Your task to perform on an android device: open app "ColorNote Notepad Notes" (install if not already installed) Image 0: 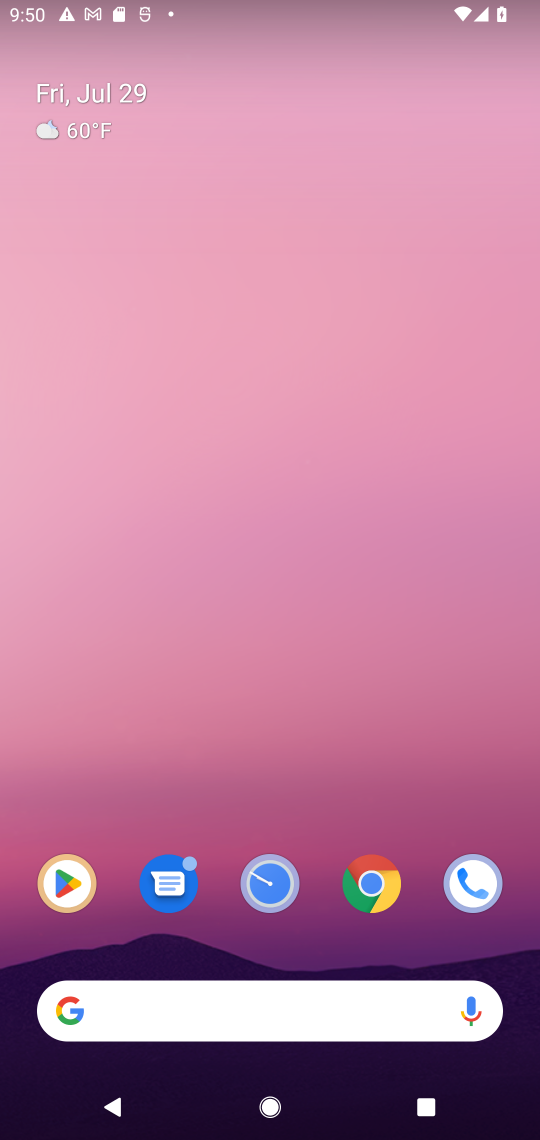
Step 0: click (65, 874)
Your task to perform on an android device: open app "ColorNote Notepad Notes" (install if not already installed) Image 1: 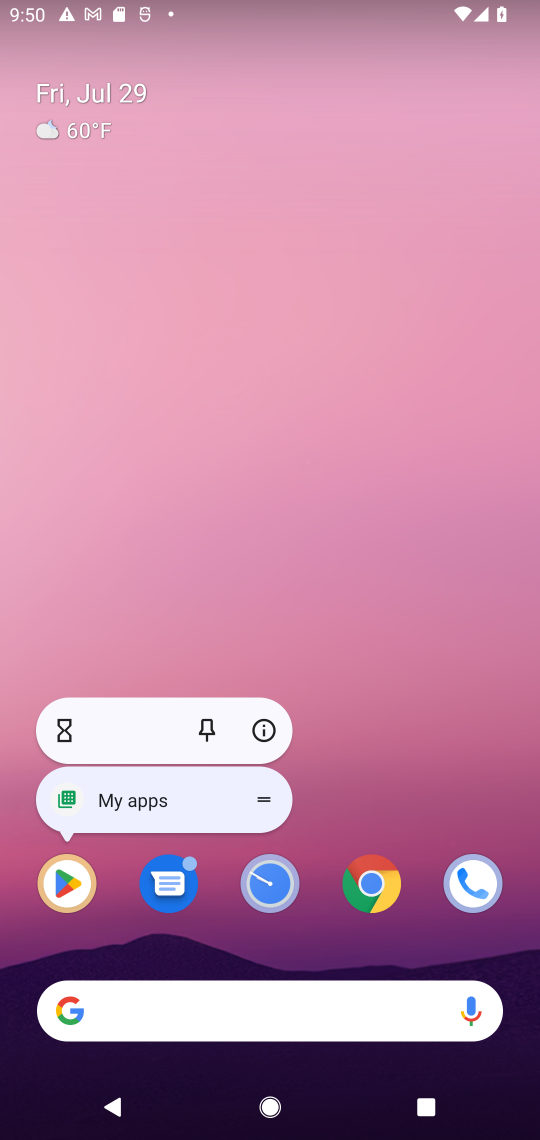
Step 1: click (66, 875)
Your task to perform on an android device: open app "ColorNote Notepad Notes" (install if not already installed) Image 2: 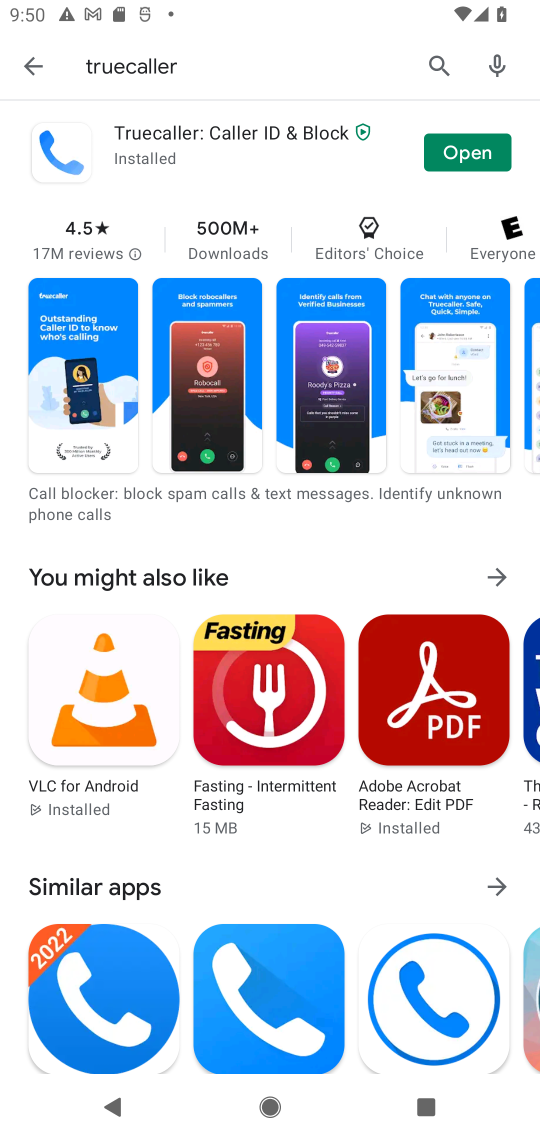
Step 2: click (229, 64)
Your task to perform on an android device: open app "ColorNote Notepad Notes" (install if not already installed) Image 3: 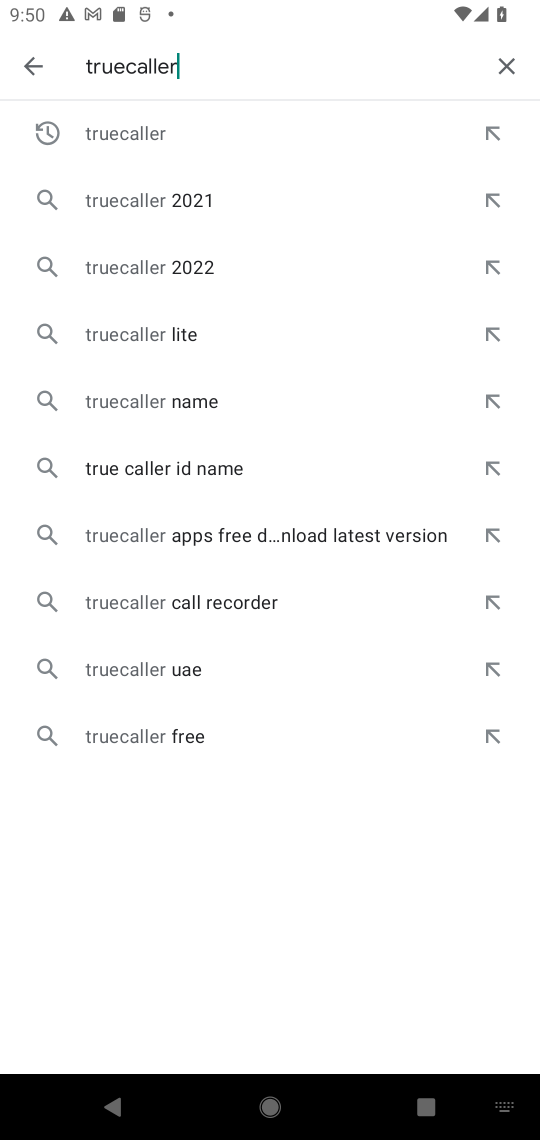
Step 3: click (250, 78)
Your task to perform on an android device: open app "ColorNote Notepad Notes" (install if not already installed) Image 4: 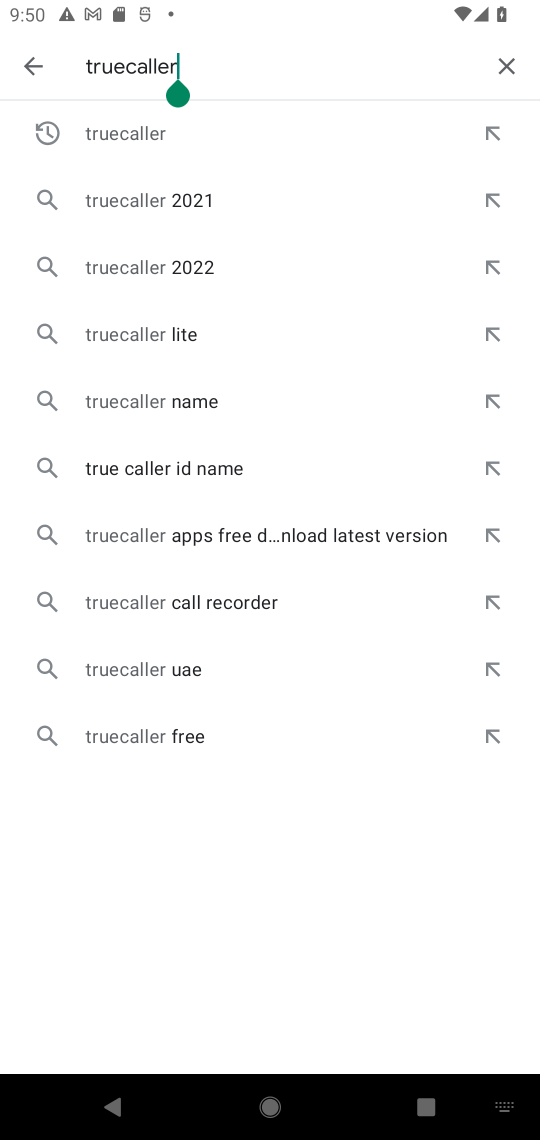
Step 4: click (502, 64)
Your task to perform on an android device: open app "ColorNote Notepad Notes" (install if not already installed) Image 5: 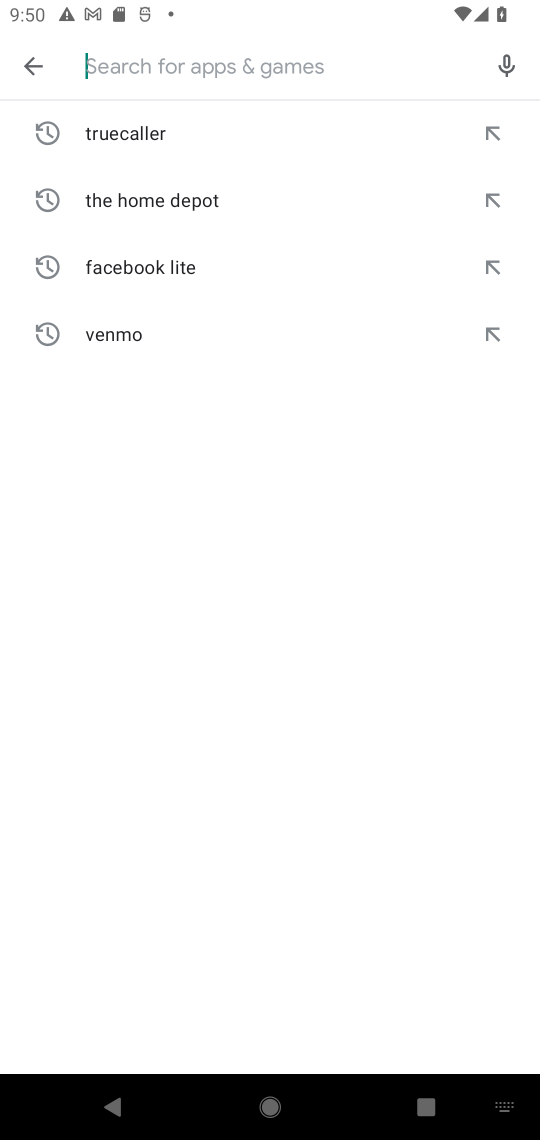
Step 5: type "ColorNote NOtepad Notes"
Your task to perform on an android device: open app "ColorNote Notepad Notes" (install if not already installed) Image 6: 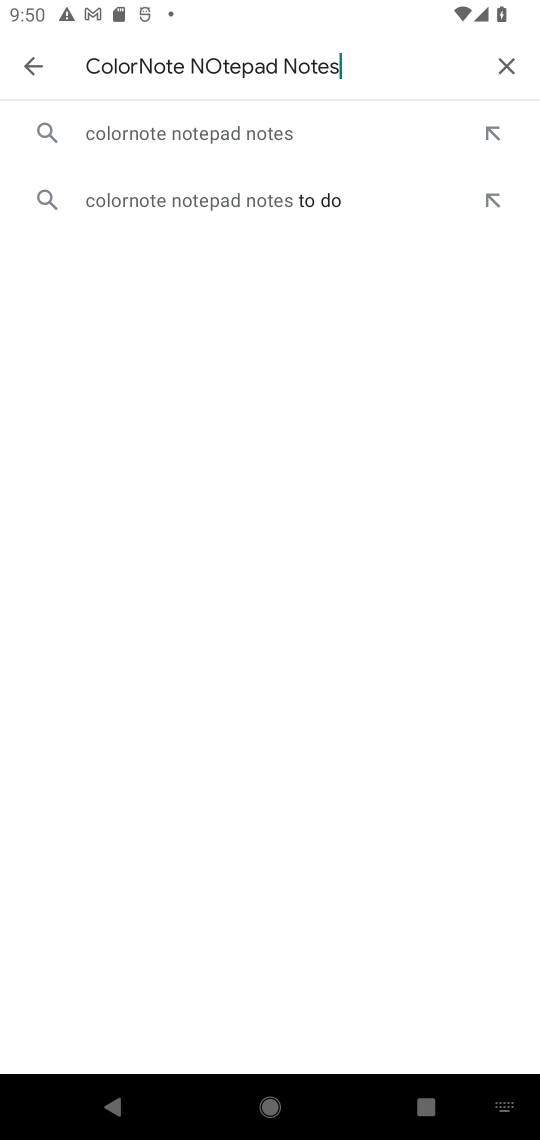
Step 6: click (256, 155)
Your task to perform on an android device: open app "ColorNote Notepad Notes" (install if not already installed) Image 7: 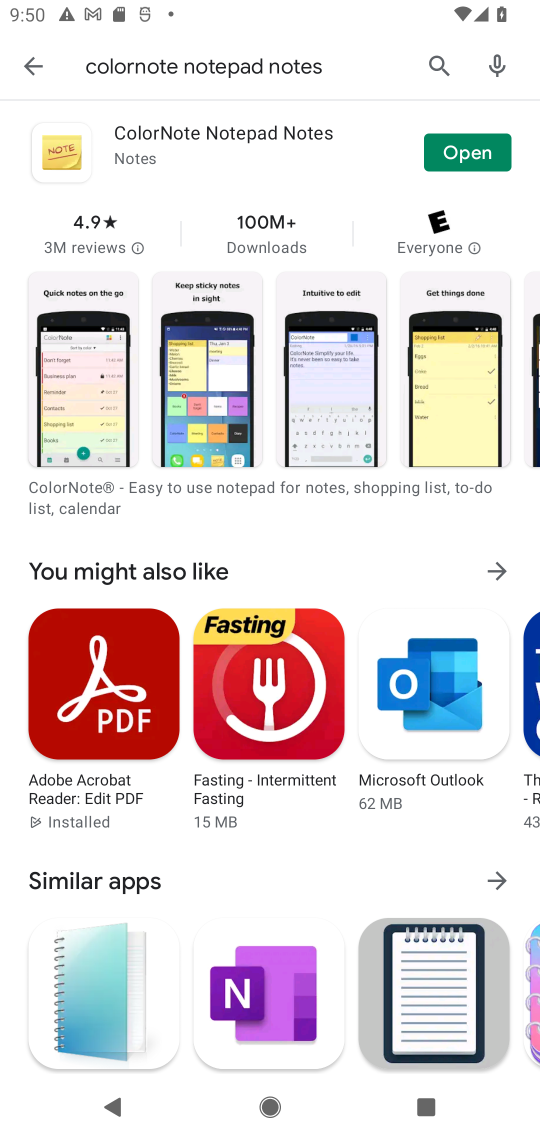
Step 7: click (497, 144)
Your task to perform on an android device: open app "ColorNote Notepad Notes" (install if not already installed) Image 8: 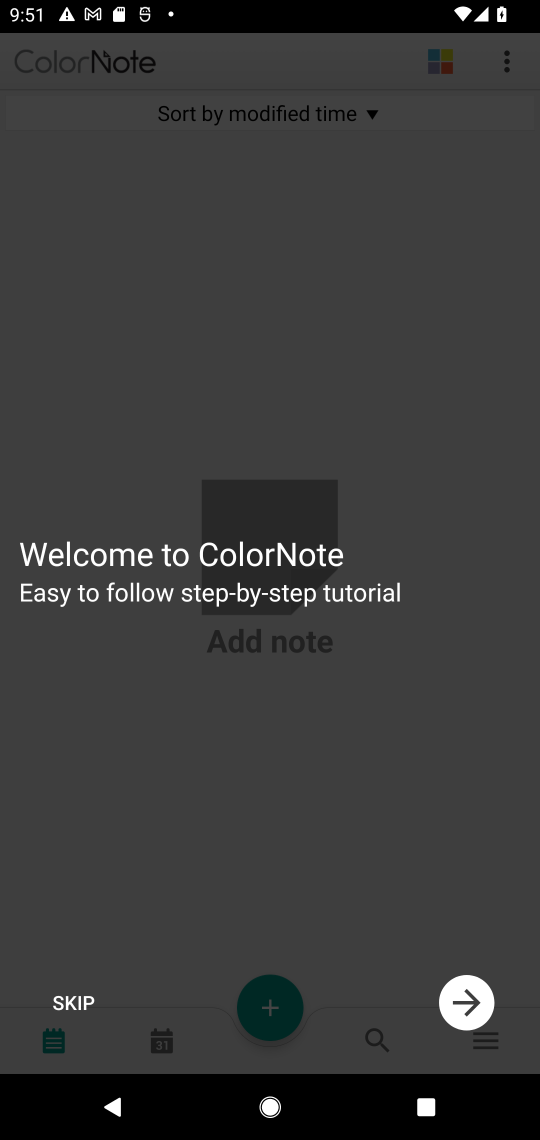
Step 8: click (265, 723)
Your task to perform on an android device: open app "ColorNote Notepad Notes" (install if not already installed) Image 9: 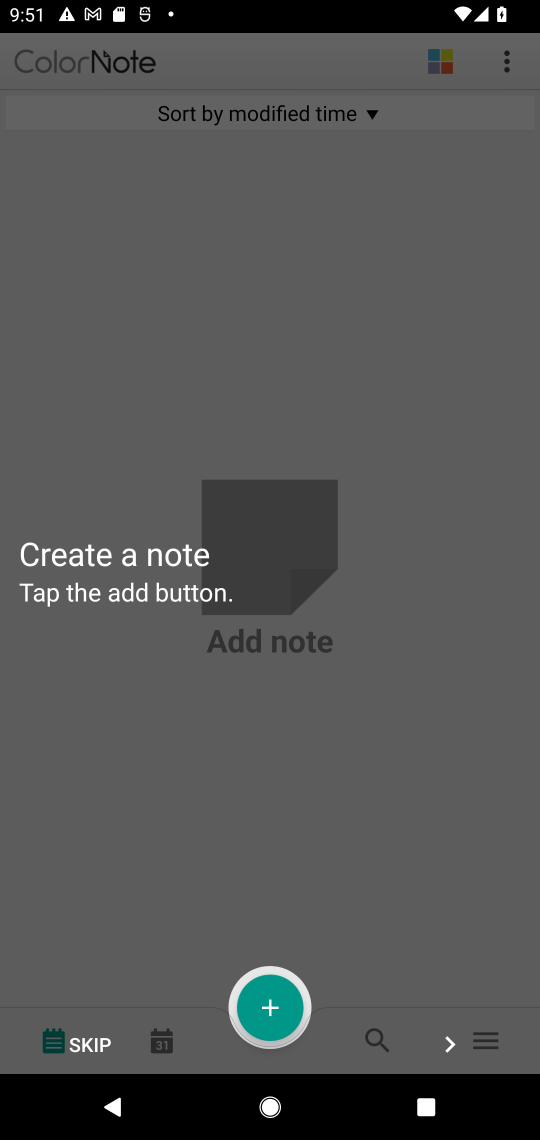
Step 9: click (90, 1045)
Your task to perform on an android device: open app "ColorNote Notepad Notes" (install if not already installed) Image 10: 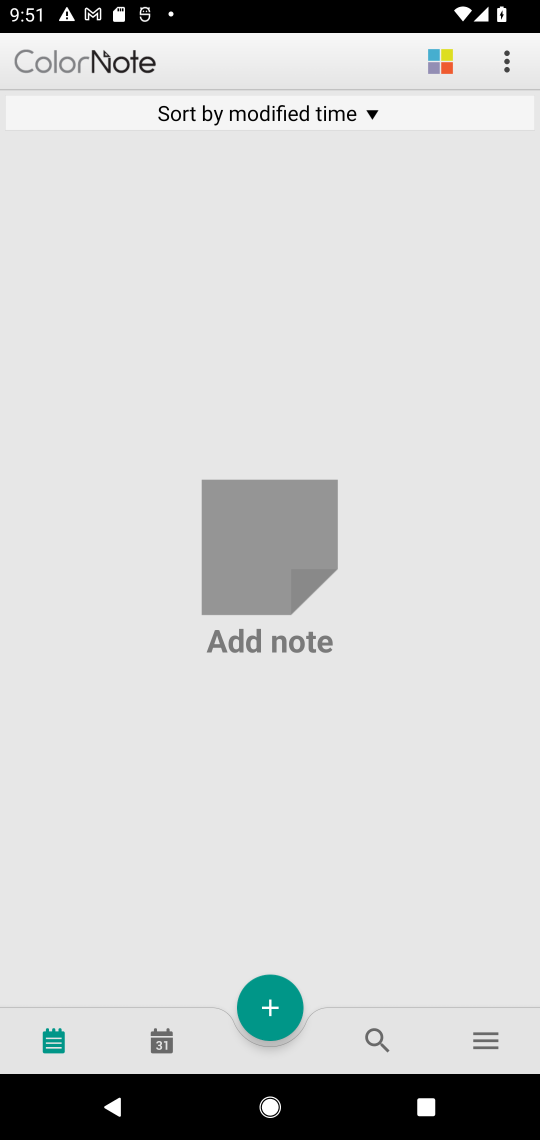
Step 10: task complete